Your task to perform on an android device: open a new tab in the chrome app Image 0: 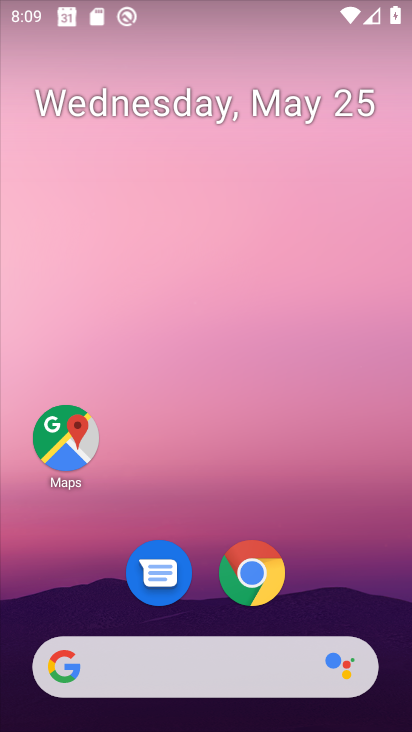
Step 0: click (266, 570)
Your task to perform on an android device: open a new tab in the chrome app Image 1: 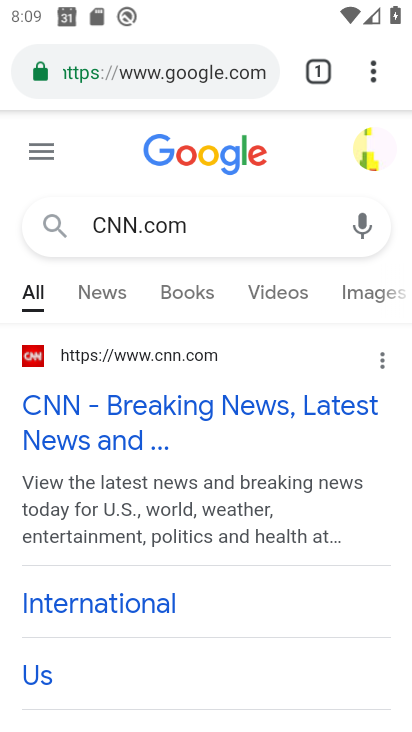
Step 1: click (372, 70)
Your task to perform on an android device: open a new tab in the chrome app Image 2: 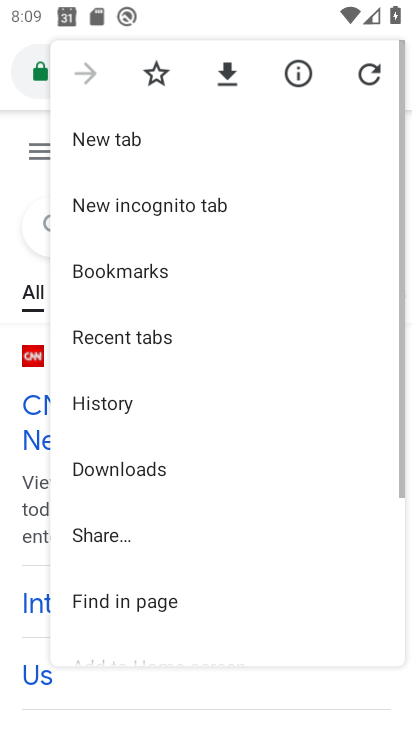
Step 2: click (119, 135)
Your task to perform on an android device: open a new tab in the chrome app Image 3: 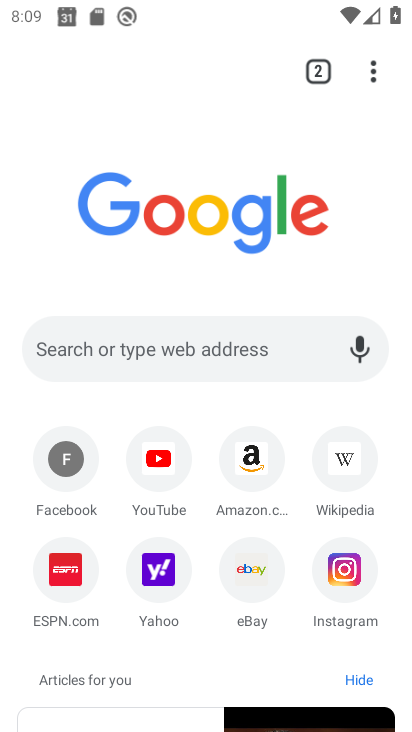
Step 3: task complete